Your task to perform on an android device: change the clock display to digital Image 0: 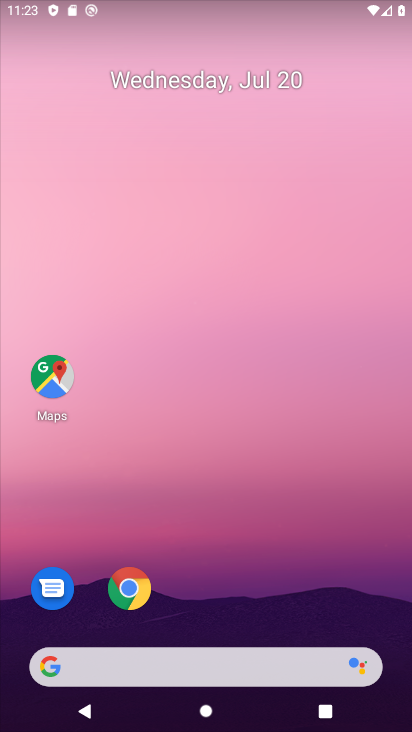
Step 0: press home button
Your task to perform on an android device: change the clock display to digital Image 1: 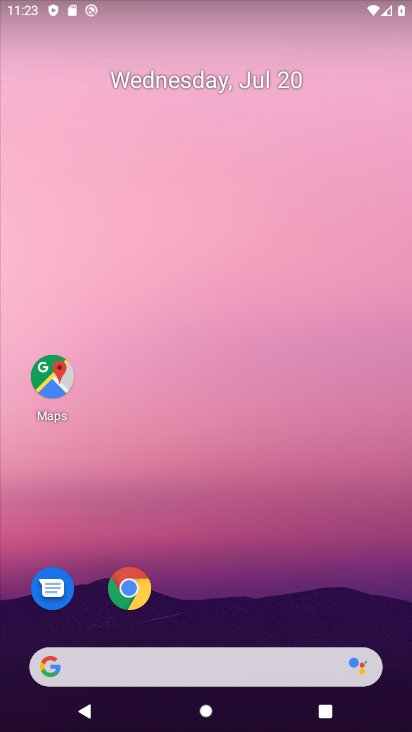
Step 1: drag from (269, 613) to (295, 11)
Your task to perform on an android device: change the clock display to digital Image 2: 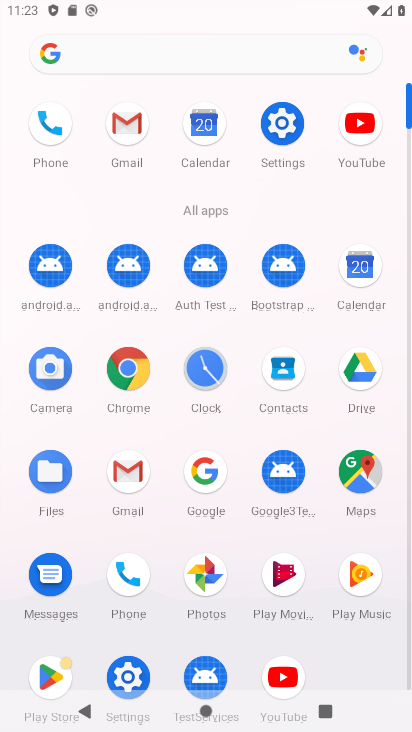
Step 2: click (212, 365)
Your task to perform on an android device: change the clock display to digital Image 3: 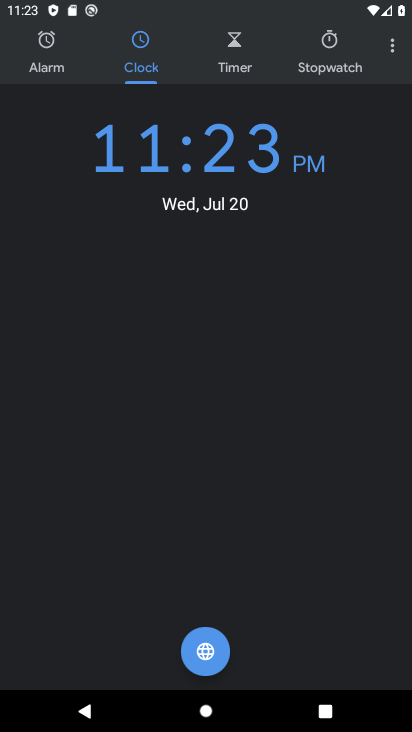
Step 3: click (393, 44)
Your task to perform on an android device: change the clock display to digital Image 4: 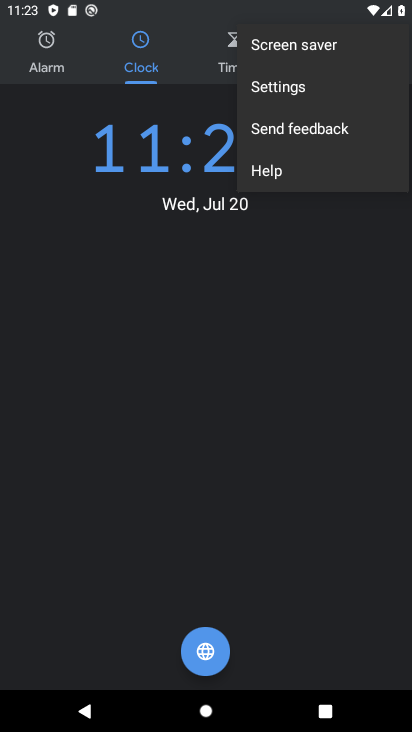
Step 4: click (287, 90)
Your task to perform on an android device: change the clock display to digital Image 5: 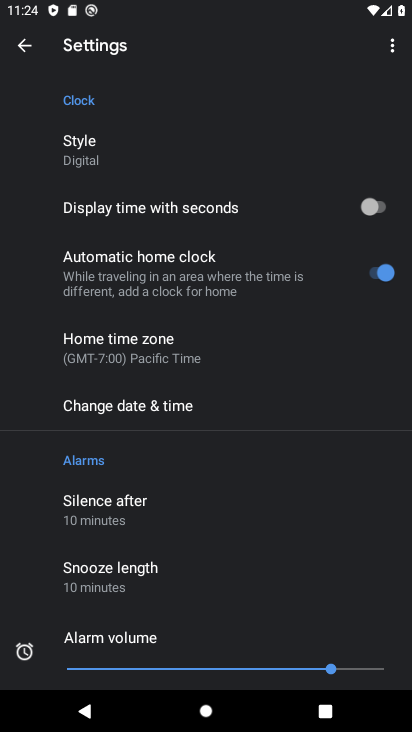
Step 5: task complete